Your task to perform on an android device: Search for pizza restaurants on Maps Image 0: 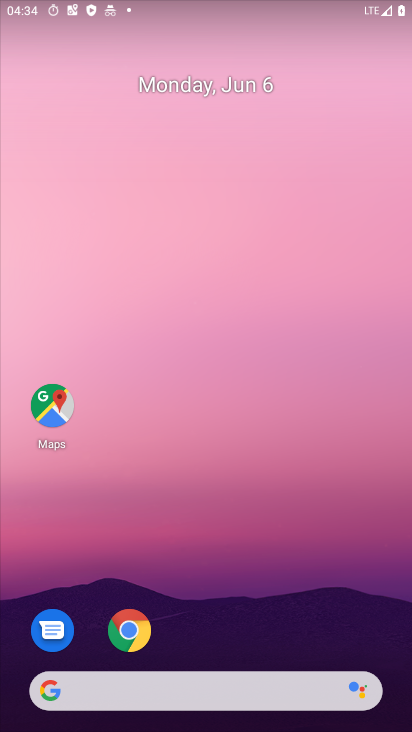
Step 0: drag from (224, 625) to (167, 104)
Your task to perform on an android device: Search for pizza restaurants on Maps Image 1: 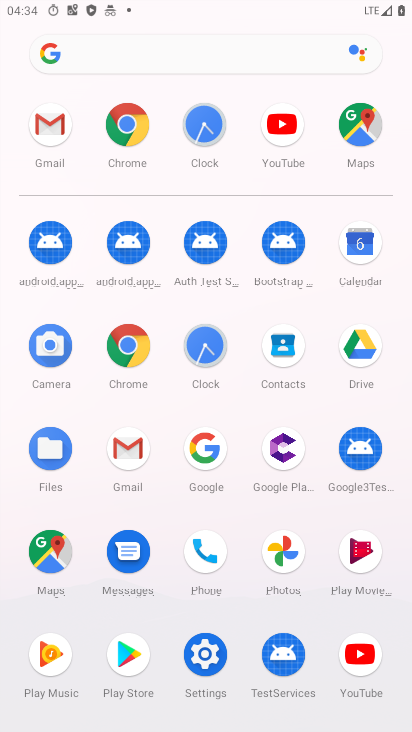
Step 1: click (50, 541)
Your task to perform on an android device: Search for pizza restaurants on Maps Image 2: 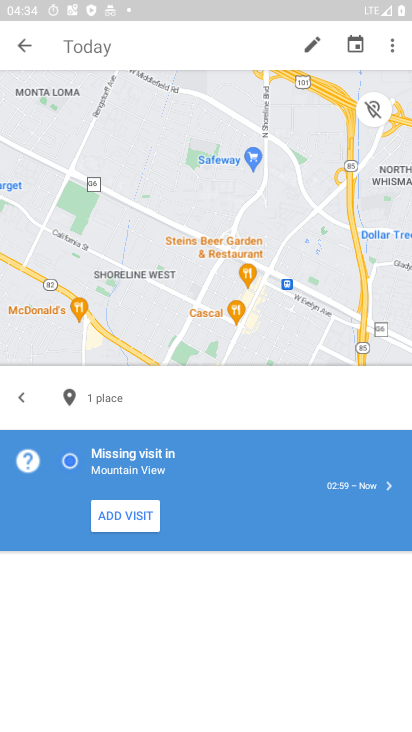
Step 2: click (26, 45)
Your task to perform on an android device: Search for pizza restaurants on Maps Image 3: 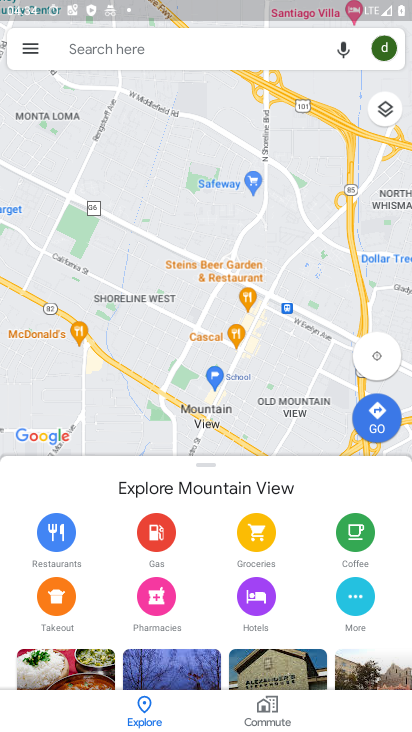
Step 3: click (93, 49)
Your task to perform on an android device: Search for pizza restaurants on Maps Image 4: 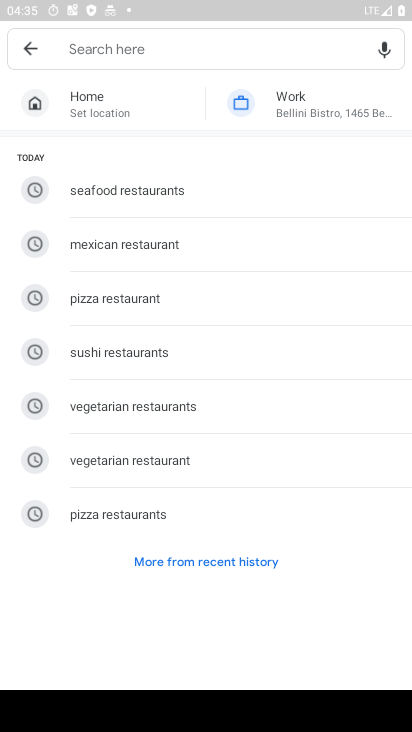
Step 4: type " pizza restaurants "
Your task to perform on an android device: Search for pizza restaurants on Maps Image 5: 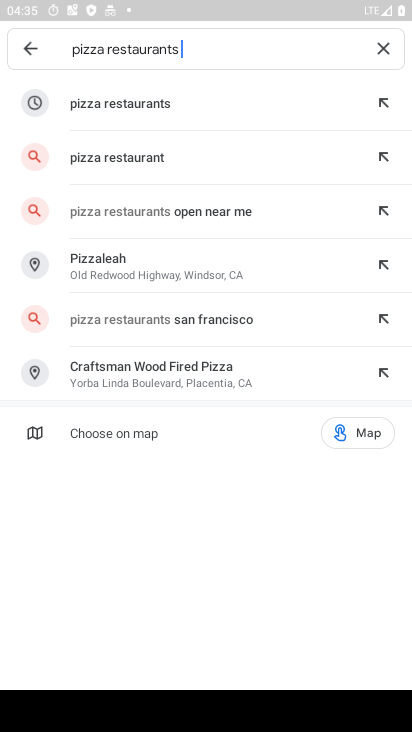
Step 5: click (106, 114)
Your task to perform on an android device: Search for pizza restaurants on Maps Image 6: 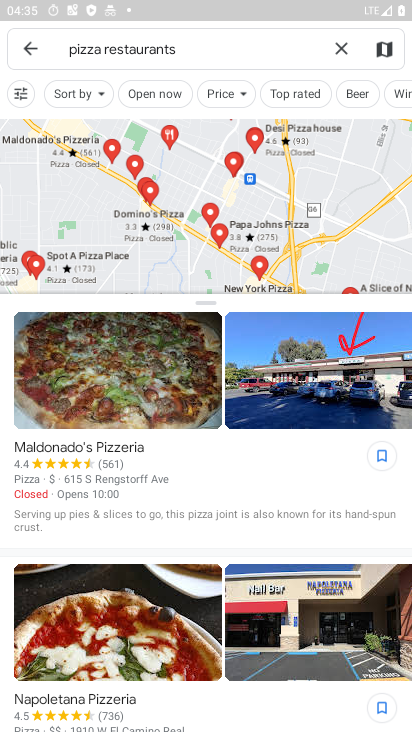
Step 6: task complete